Your task to perform on an android device: stop showing notifications on the lock screen Image 0: 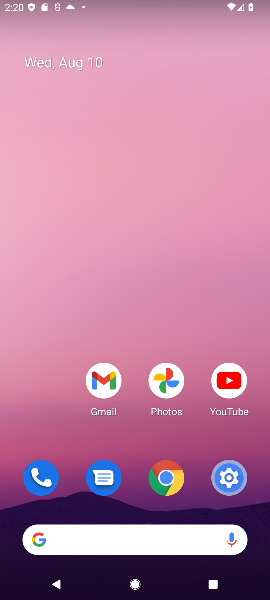
Step 0: drag from (178, 313) to (230, 9)
Your task to perform on an android device: stop showing notifications on the lock screen Image 1: 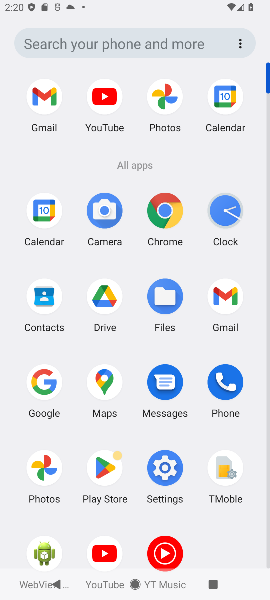
Step 1: task complete